Your task to perform on an android device: set default search engine in the chrome app Image 0: 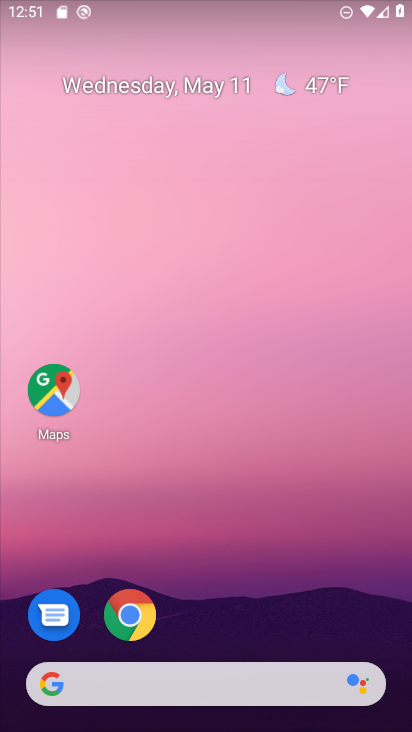
Step 0: drag from (351, 520) to (373, 205)
Your task to perform on an android device: set default search engine in the chrome app Image 1: 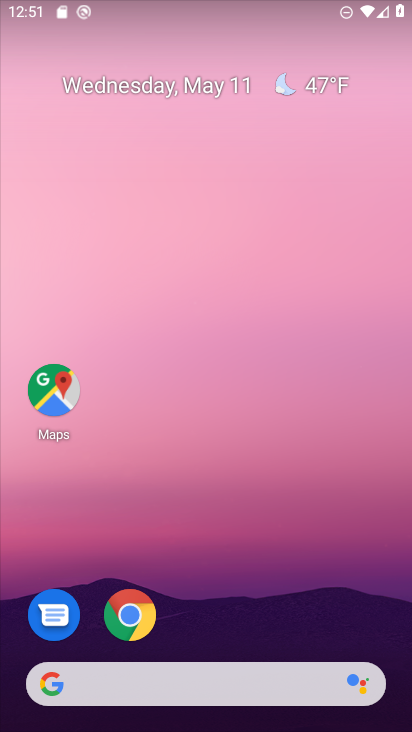
Step 1: drag from (264, 551) to (197, 13)
Your task to perform on an android device: set default search engine in the chrome app Image 2: 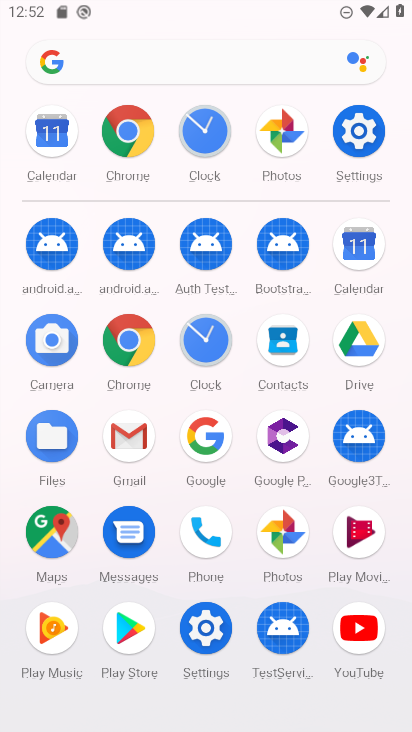
Step 2: click (126, 119)
Your task to perform on an android device: set default search engine in the chrome app Image 3: 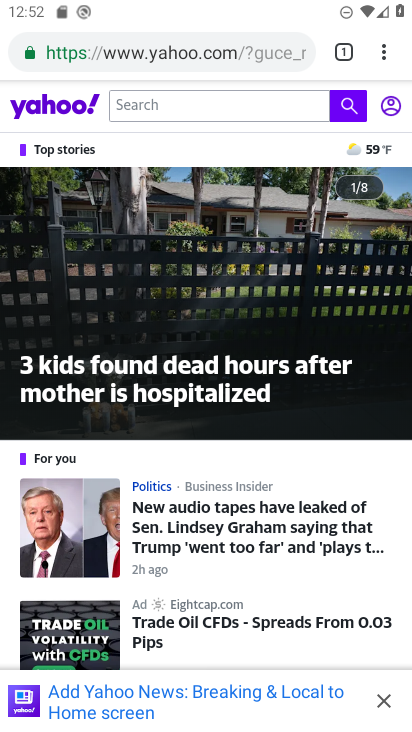
Step 3: drag from (390, 55) to (224, 641)
Your task to perform on an android device: set default search engine in the chrome app Image 4: 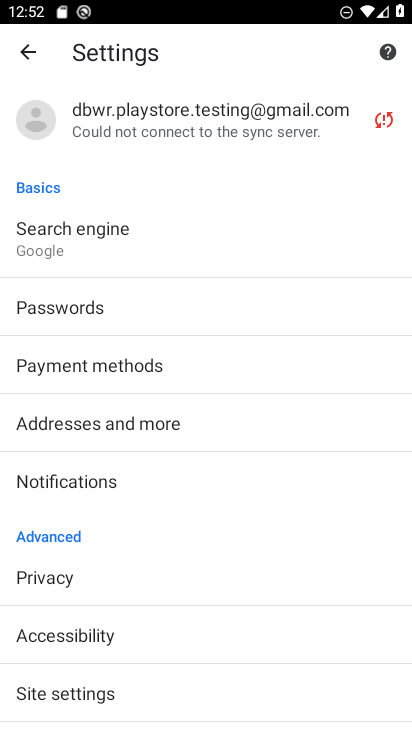
Step 4: click (35, 232)
Your task to perform on an android device: set default search engine in the chrome app Image 5: 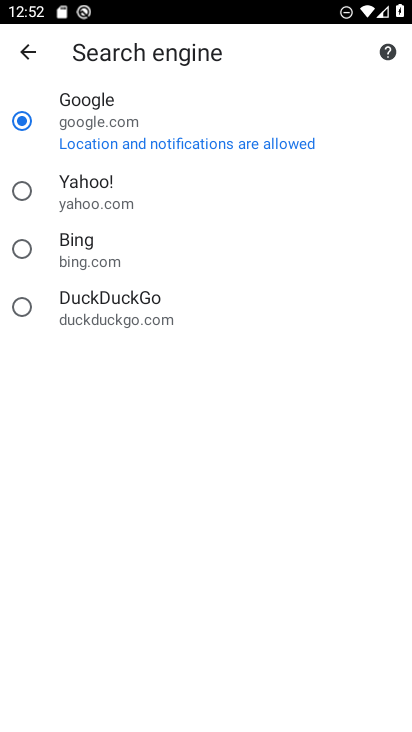
Step 5: task complete